Your task to perform on an android device: Open Yahoo.com Image 0: 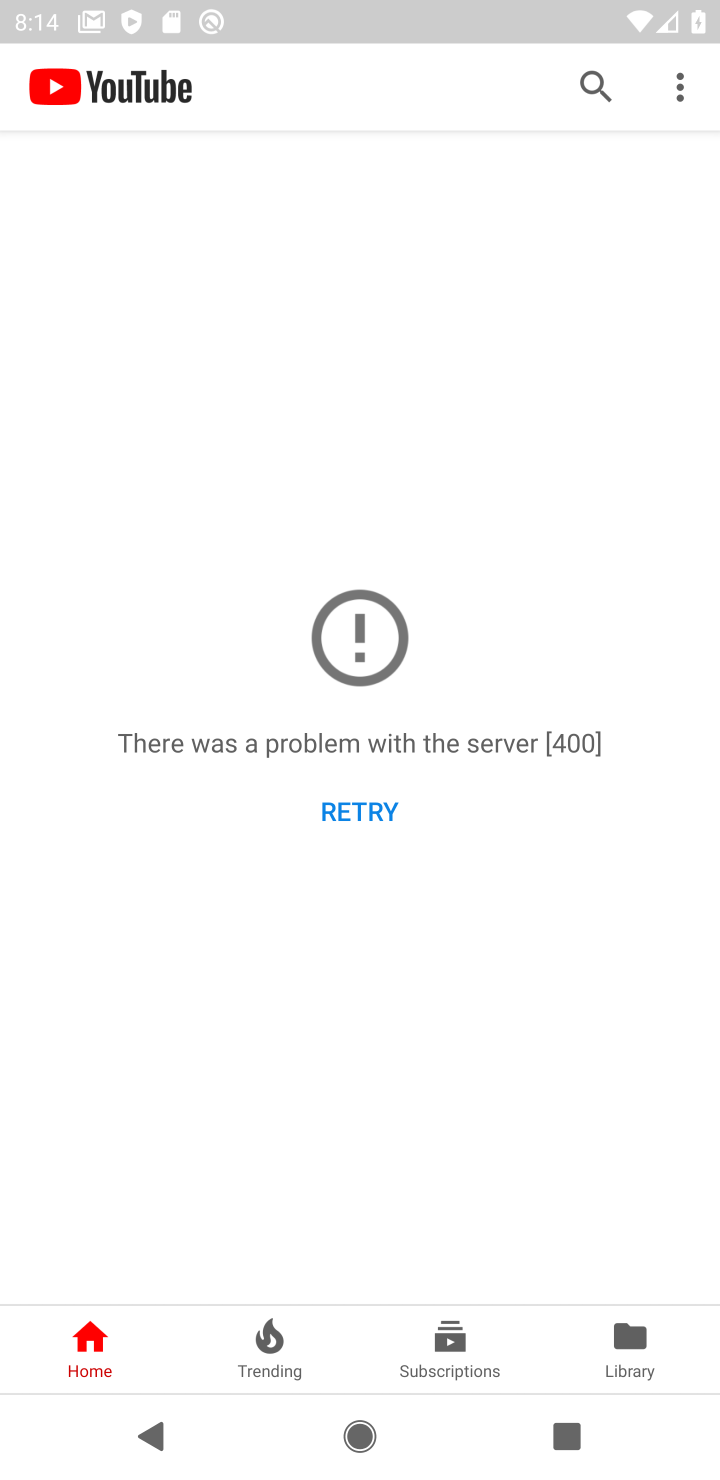
Step 0: press back button
Your task to perform on an android device: Open Yahoo.com Image 1: 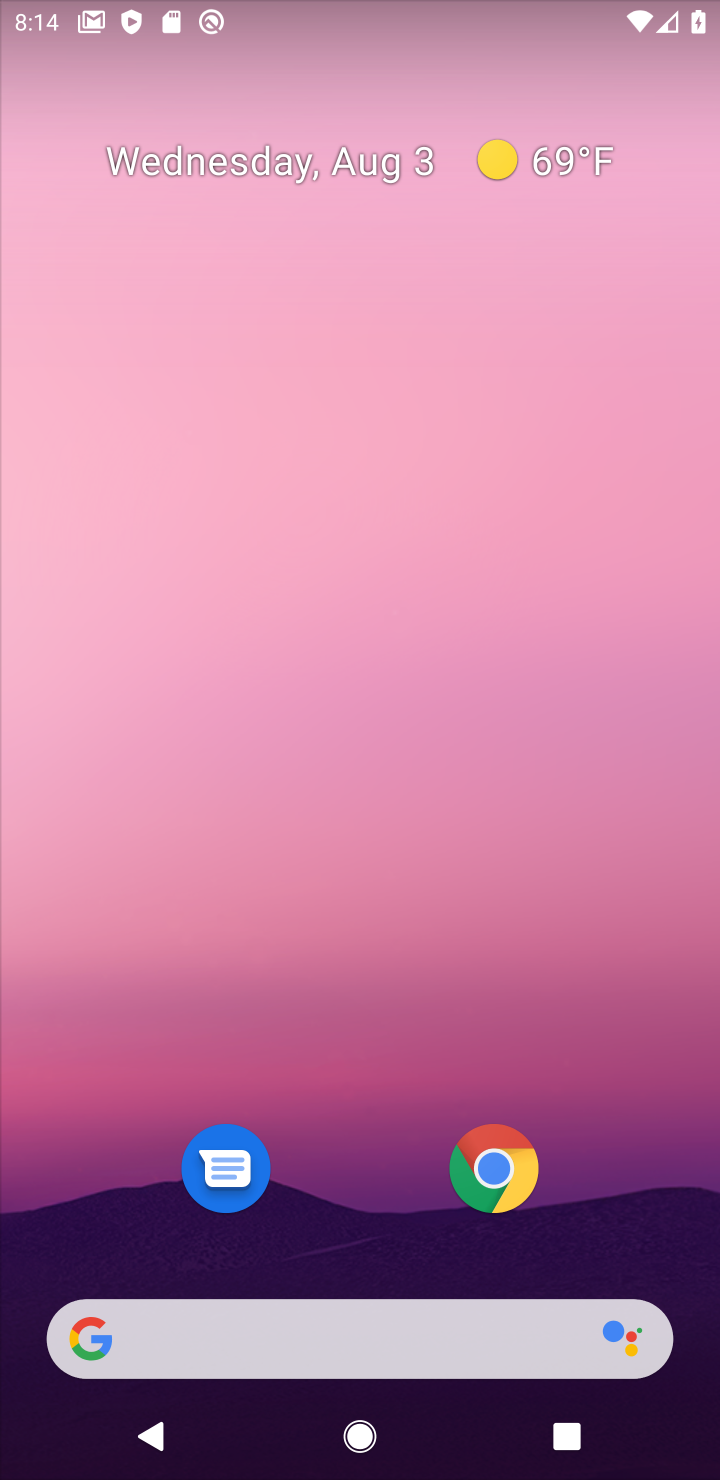
Step 1: drag from (372, 1295) to (311, 310)
Your task to perform on an android device: Open Yahoo.com Image 2: 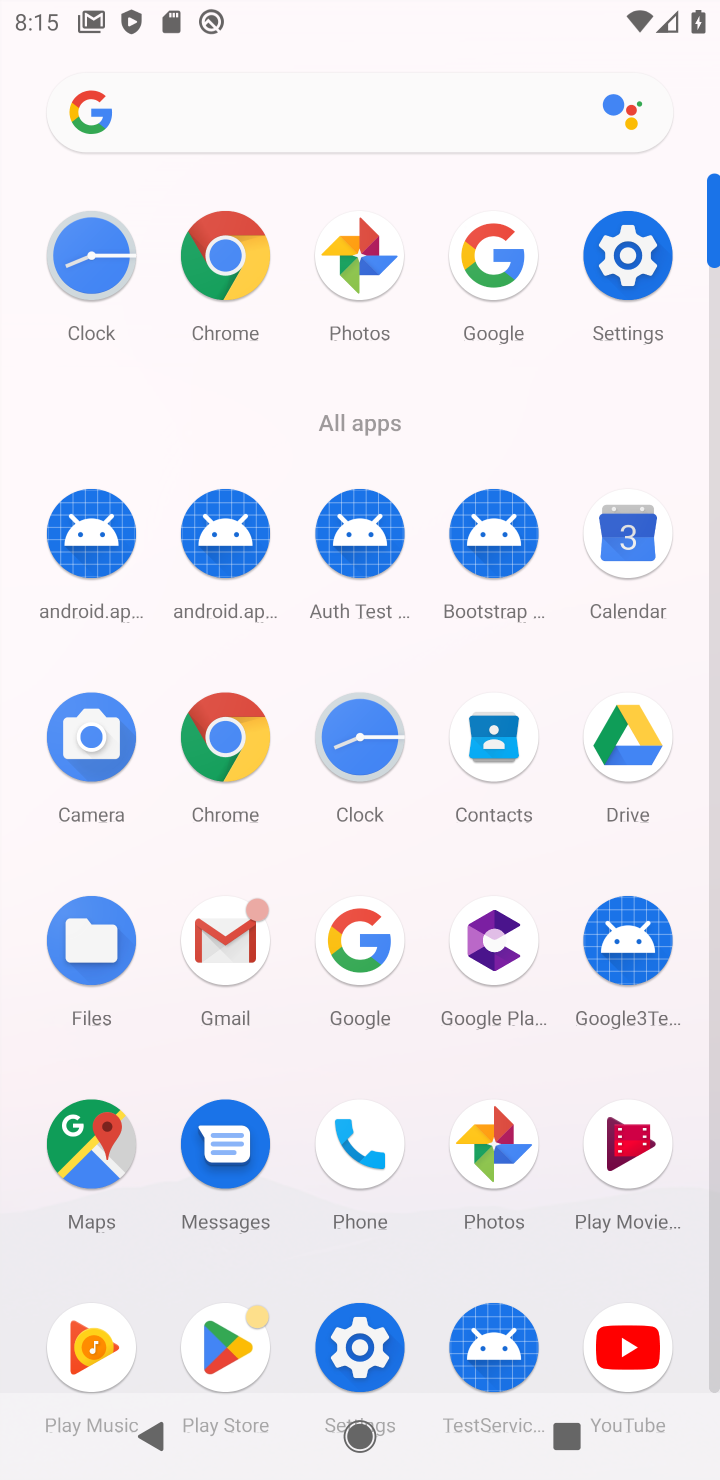
Step 2: click (222, 751)
Your task to perform on an android device: Open Yahoo.com Image 3: 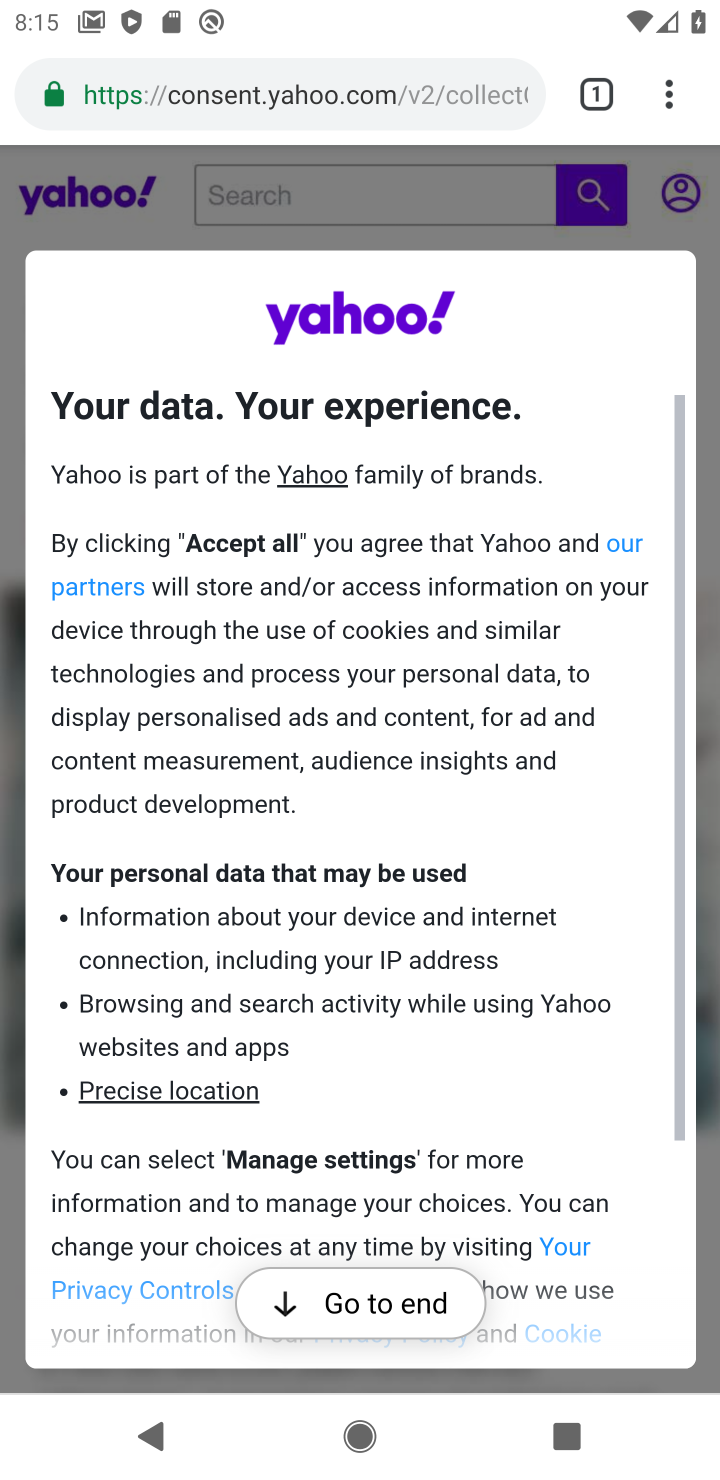
Step 3: click (336, 1304)
Your task to perform on an android device: Open Yahoo.com Image 4: 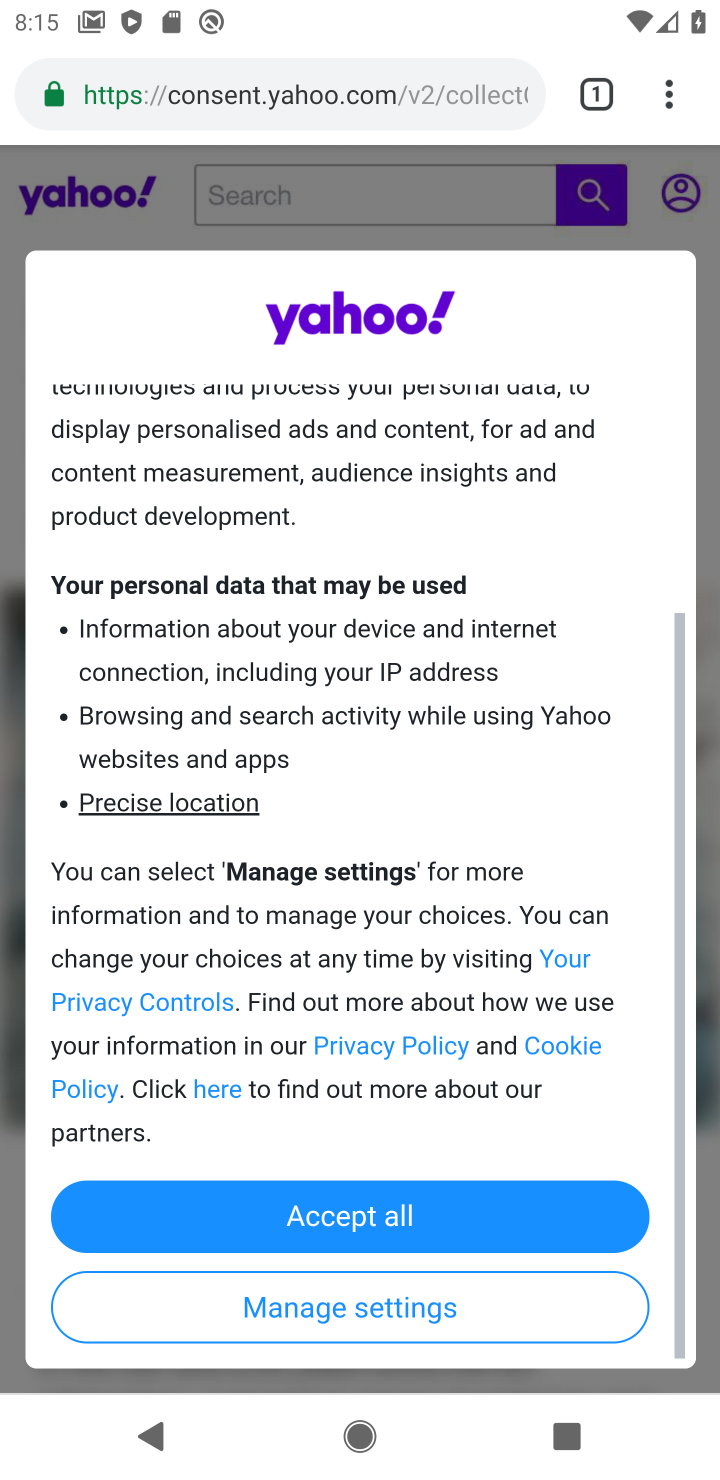
Step 4: click (314, 1180)
Your task to perform on an android device: Open Yahoo.com Image 5: 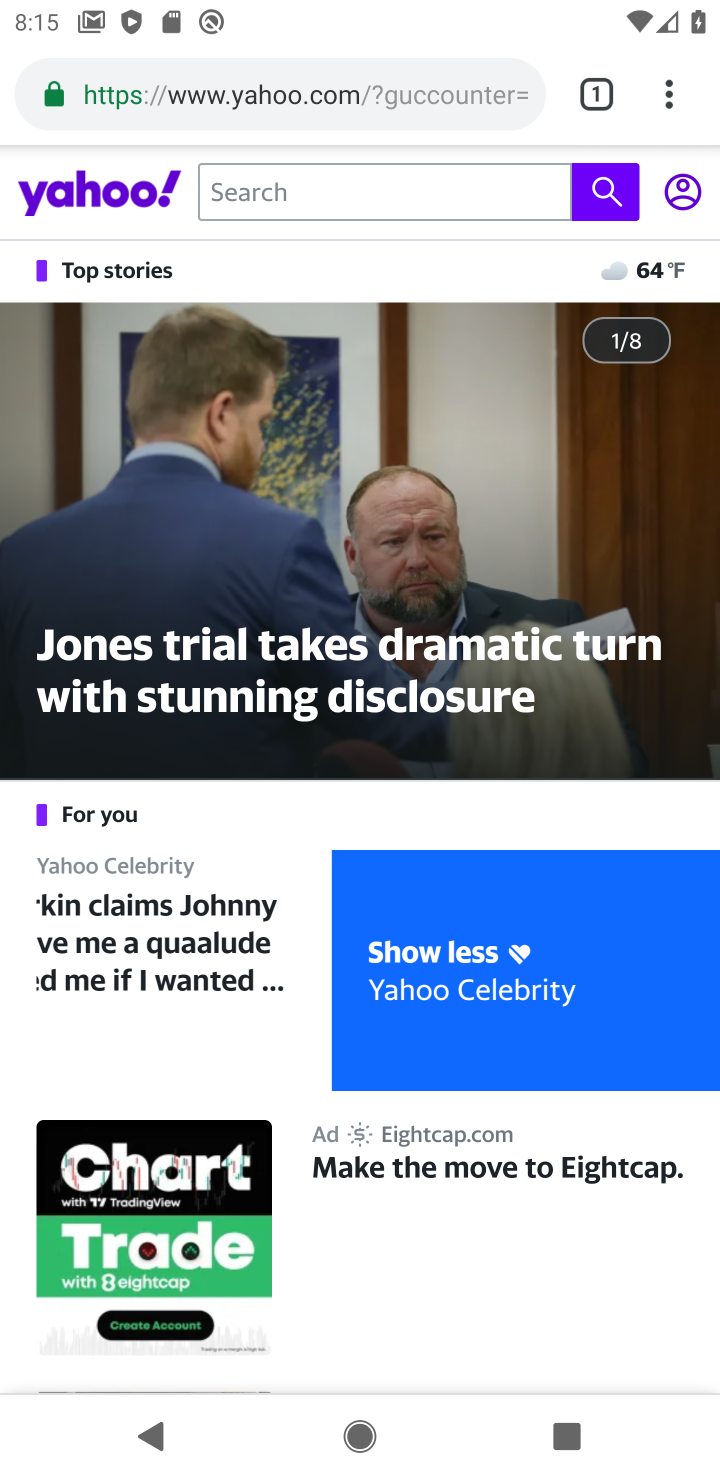
Step 5: task complete